Your task to perform on an android device: Open notification settings Image 0: 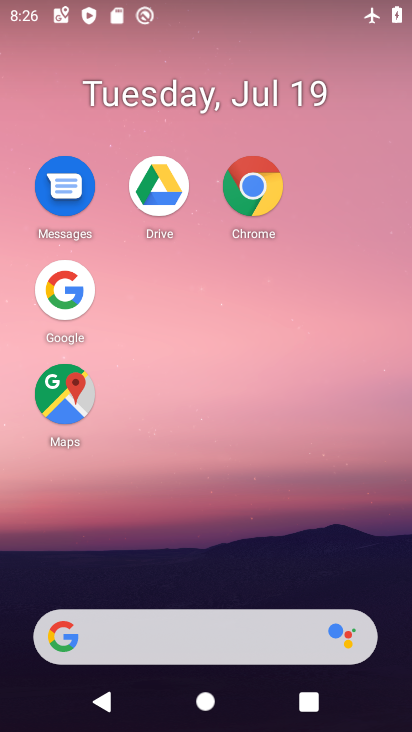
Step 0: drag from (234, 597) to (215, 106)
Your task to perform on an android device: Open notification settings Image 1: 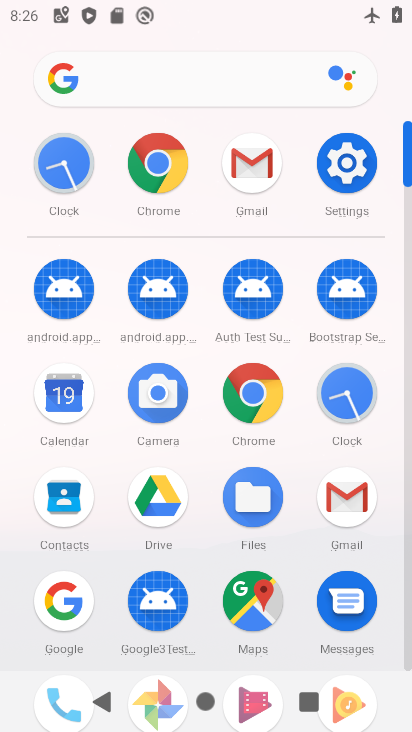
Step 1: click (363, 184)
Your task to perform on an android device: Open notification settings Image 2: 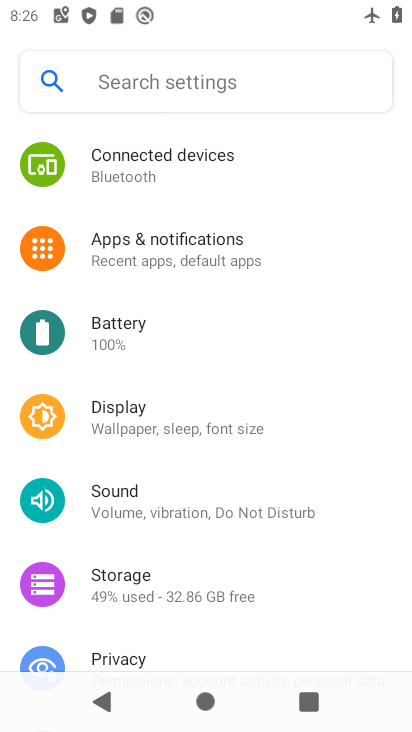
Step 2: click (198, 252)
Your task to perform on an android device: Open notification settings Image 3: 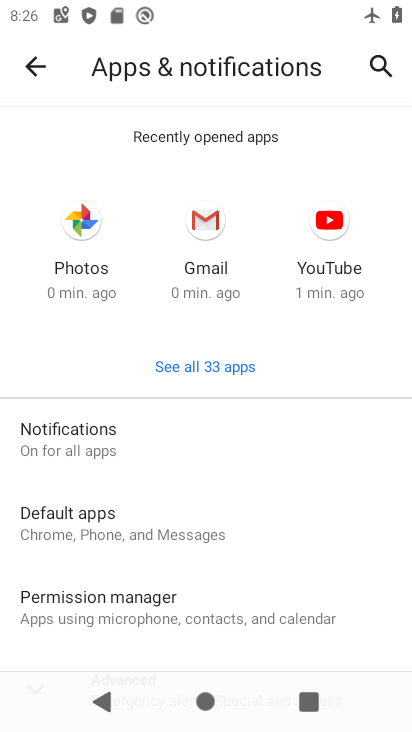
Step 3: click (98, 419)
Your task to perform on an android device: Open notification settings Image 4: 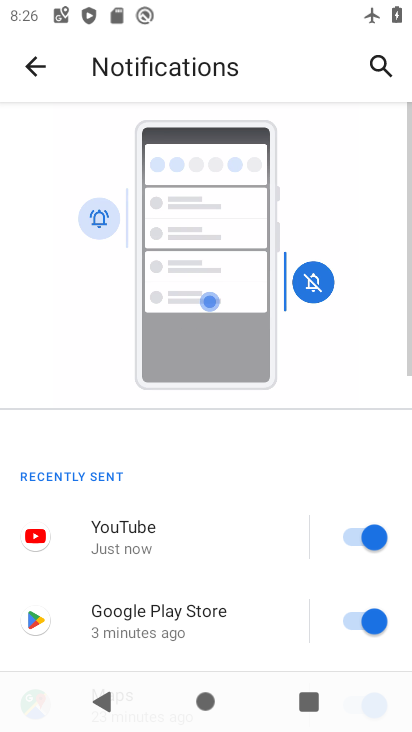
Step 4: task complete